Your task to perform on an android device: Go to location settings Image 0: 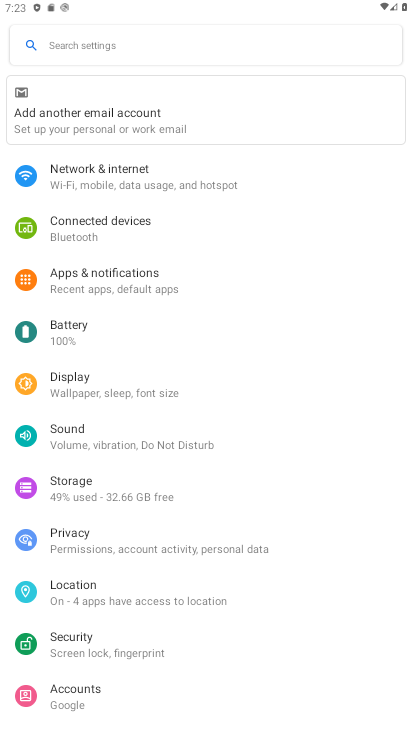
Step 0: click (112, 575)
Your task to perform on an android device: Go to location settings Image 1: 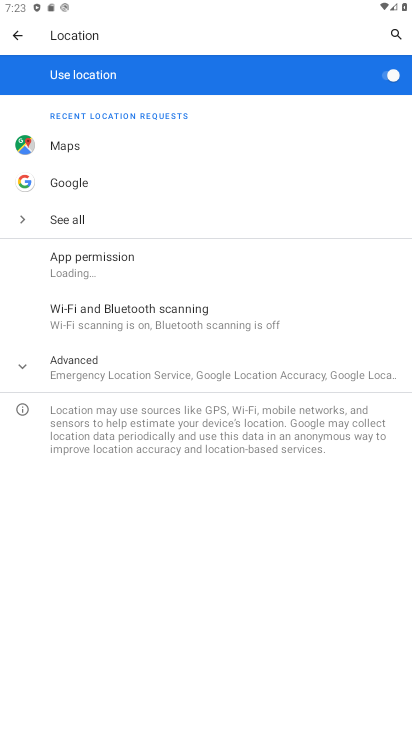
Step 1: click (112, 575)
Your task to perform on an android device: Go to location settings Image 2: 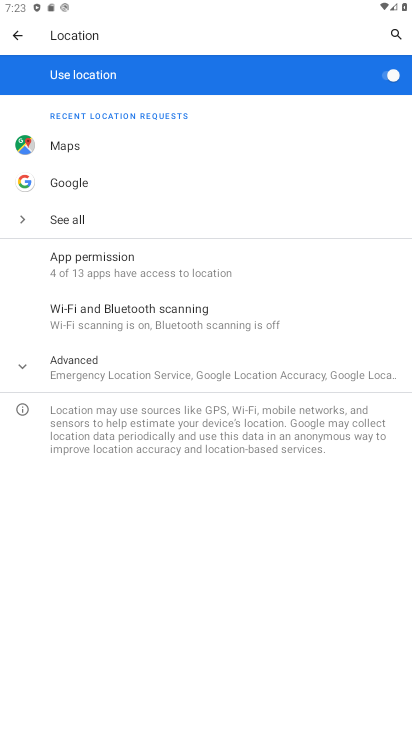
Step 2: click (112, 575)
Your task to perform on an android device: Go to location settings Image 3: 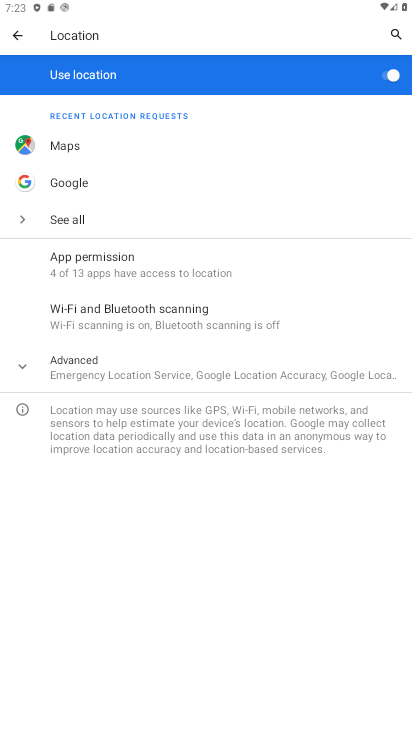
Step 3: click (112, 575)
Your task to perform on an android device: Go to location settings Image 4: 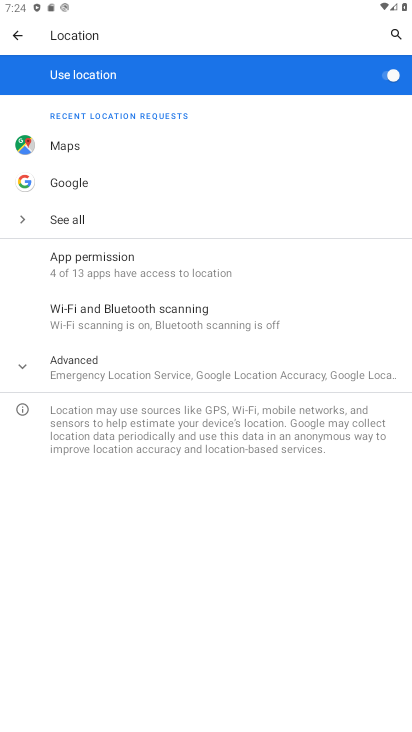
Step 4: click (115, 367)
Your task to perform on an android device: Go to location settings Image 5: 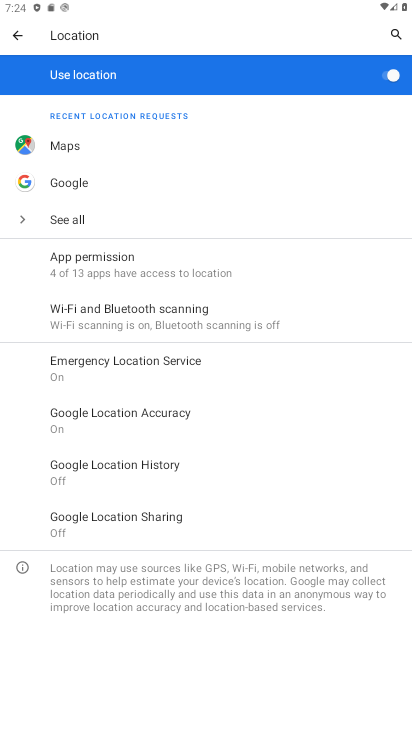
Step 5: task complete